Your task to perform on an android device: make emails show in primary in the gmail app Image 0: 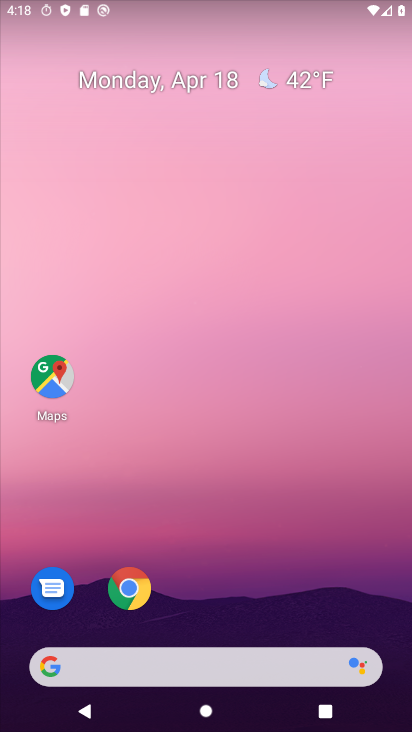
Step 0: drag from (196, 377) to (194, 38)
Your task to perform on an android device: make emails show in primary in the gmail app Image 1: 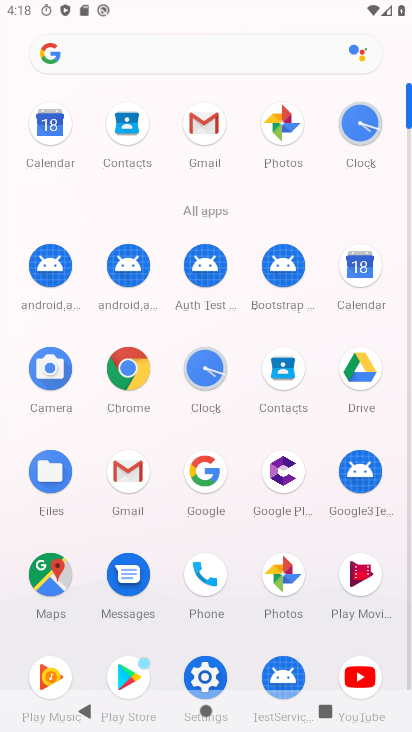
Step 1: click (198, 116)
Your task to perform on an android device: make emails show in primary in the gmail app Image 2: 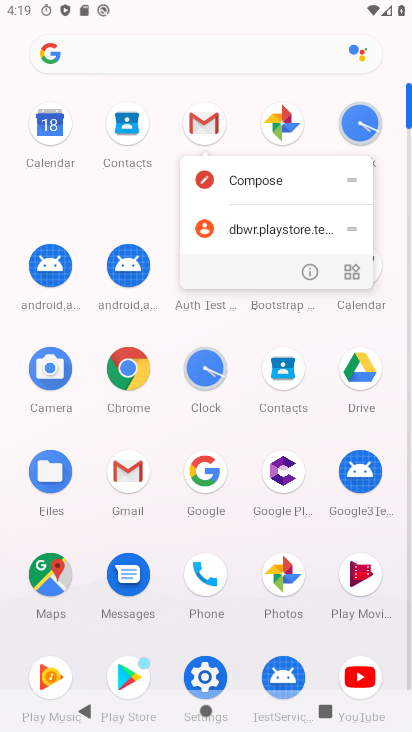
Step 2: click (200, 121)
Your task to perform on an android device: make emails show in primary in the gmail app Image 3: 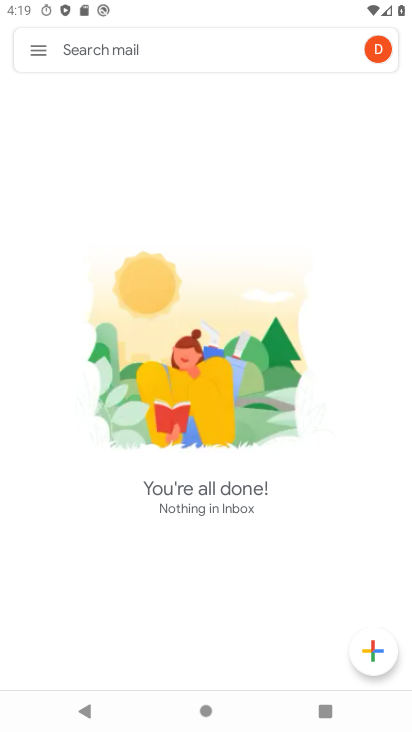
Step 3: click (44, 49)
Your task to perform on an android device: make emails show in primary in the gmail app Image 4: 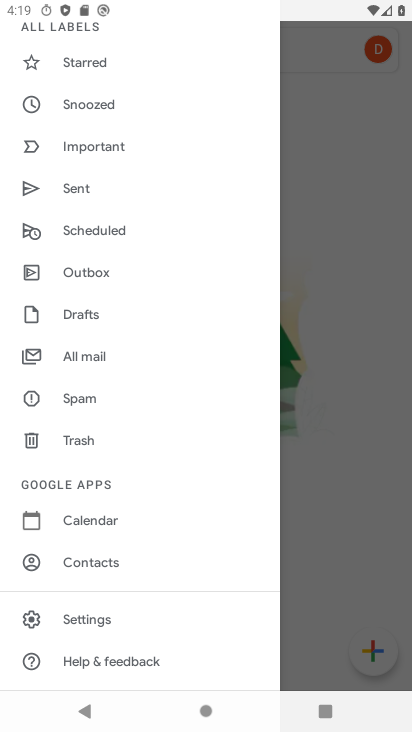
Step 4: task complete